Your task to perform on an android device: What's the news in Jamaica? Image 0: 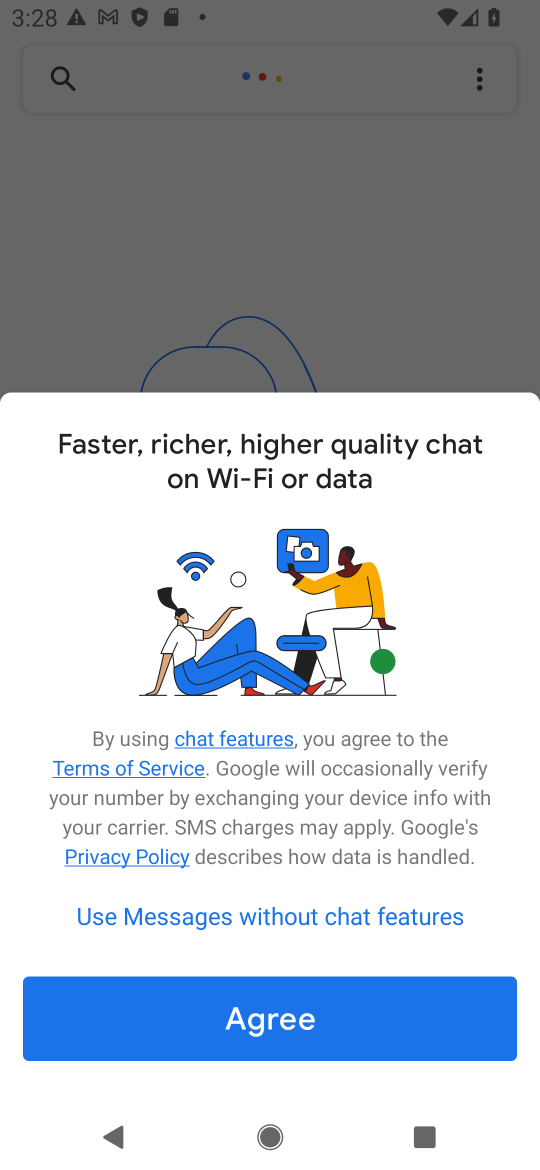
Step 0: press home button
Your task to perform on an android device: What's the news in Jamaica? Image 1: 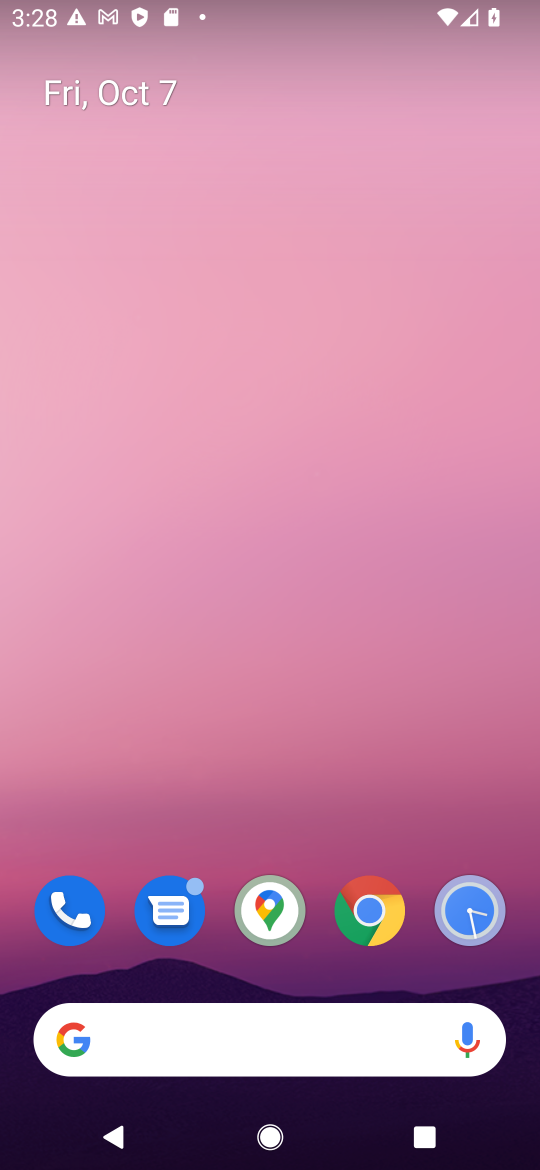
Step 1: click (207, 1048)
Your task to perform on an android device: What's the news in Jamaica? Image 2: 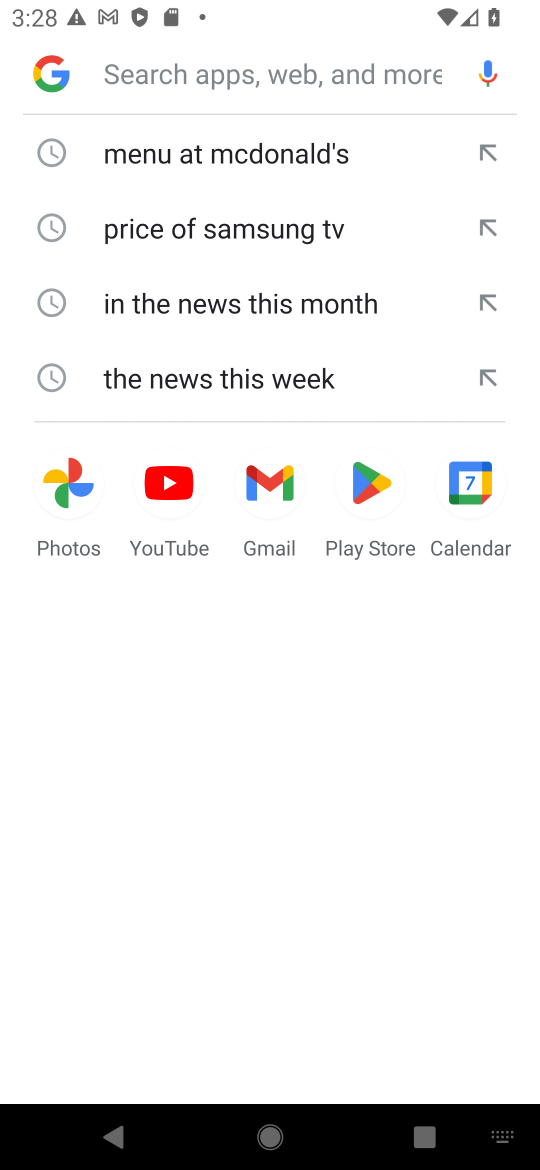
Step 2: type "the news in Jamaica"
Your task to perform on an android device: What's the news in Jamaica? Image 3: 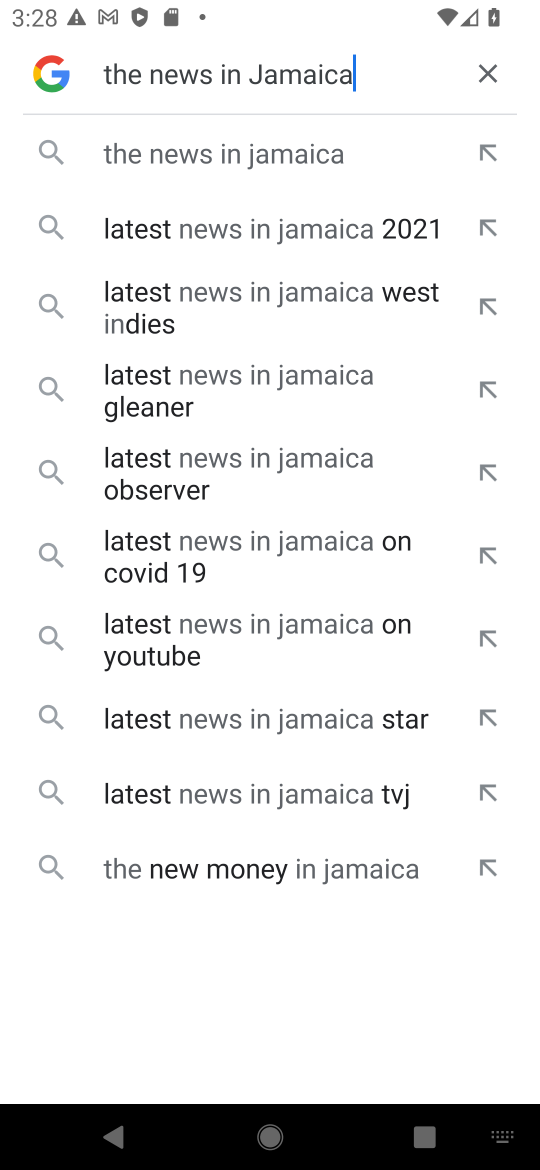
Step 3: click (314, 143)
Your task to perform on an android device: What's the news in Jamaica? Image 4: 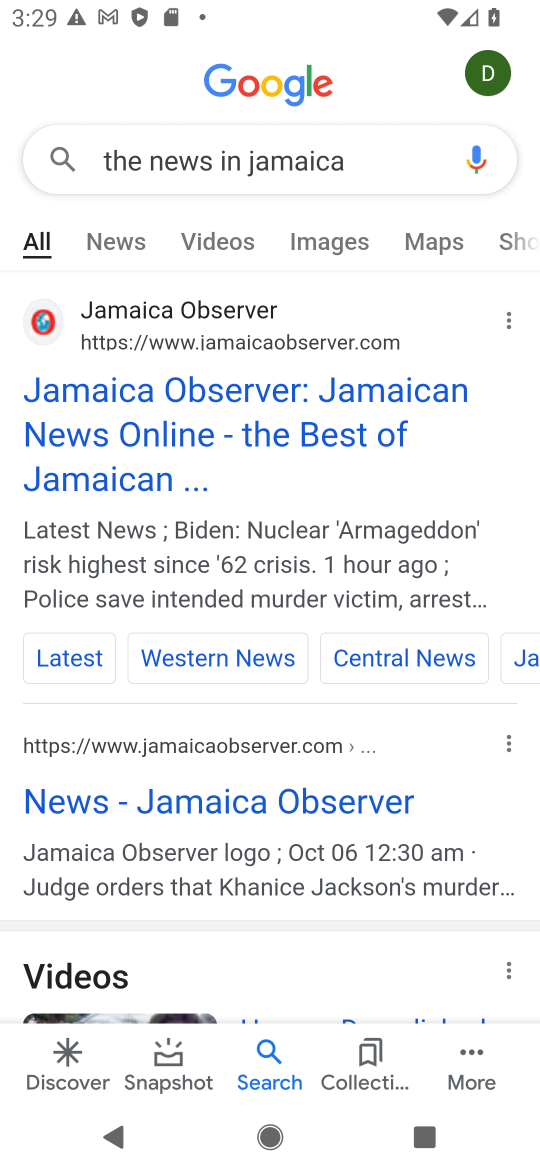
Step 4: click (127, 237)
Your task to perform on an android device: What's the news in Jamaica? Image 5: 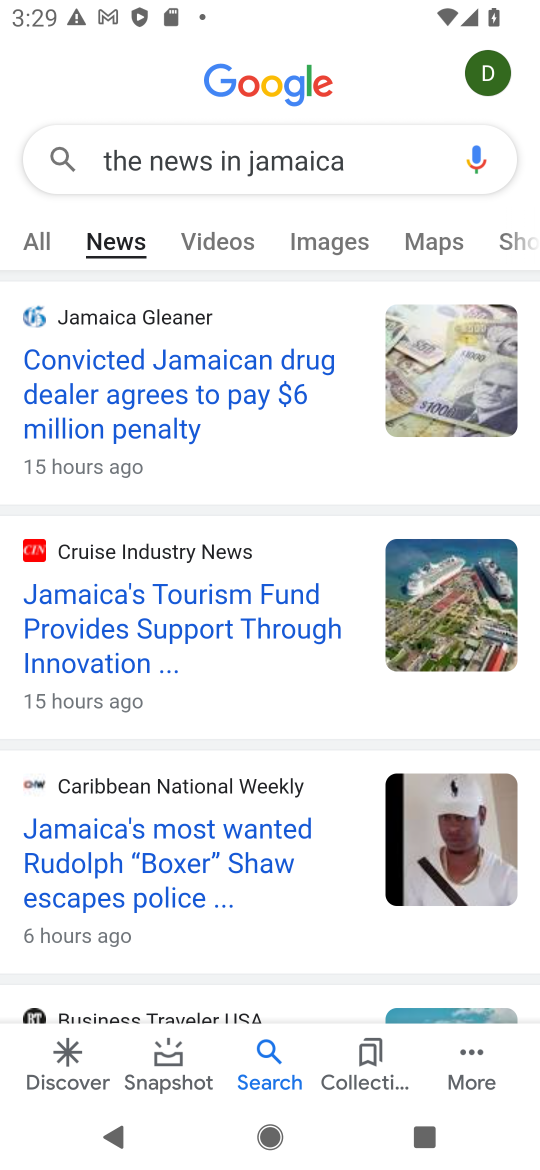
Step 5: click (353, 314)
Your task to perform on an android device: What's the news in Jamaica? Image 6: 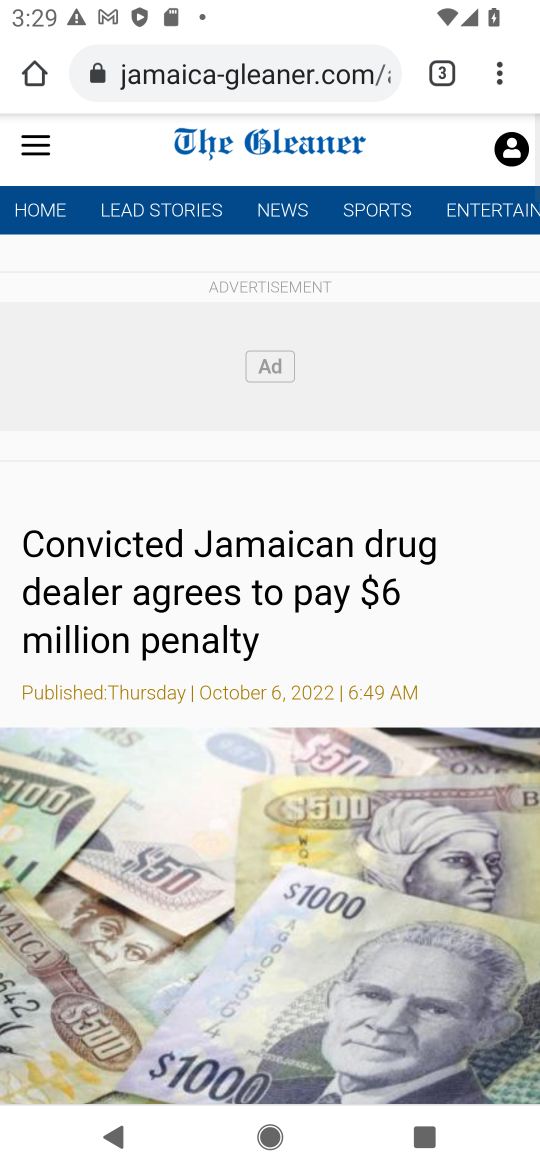
Step 6: task complete